Your task to perform on an android device: Open the calendar and show me this week's events? Image 0: 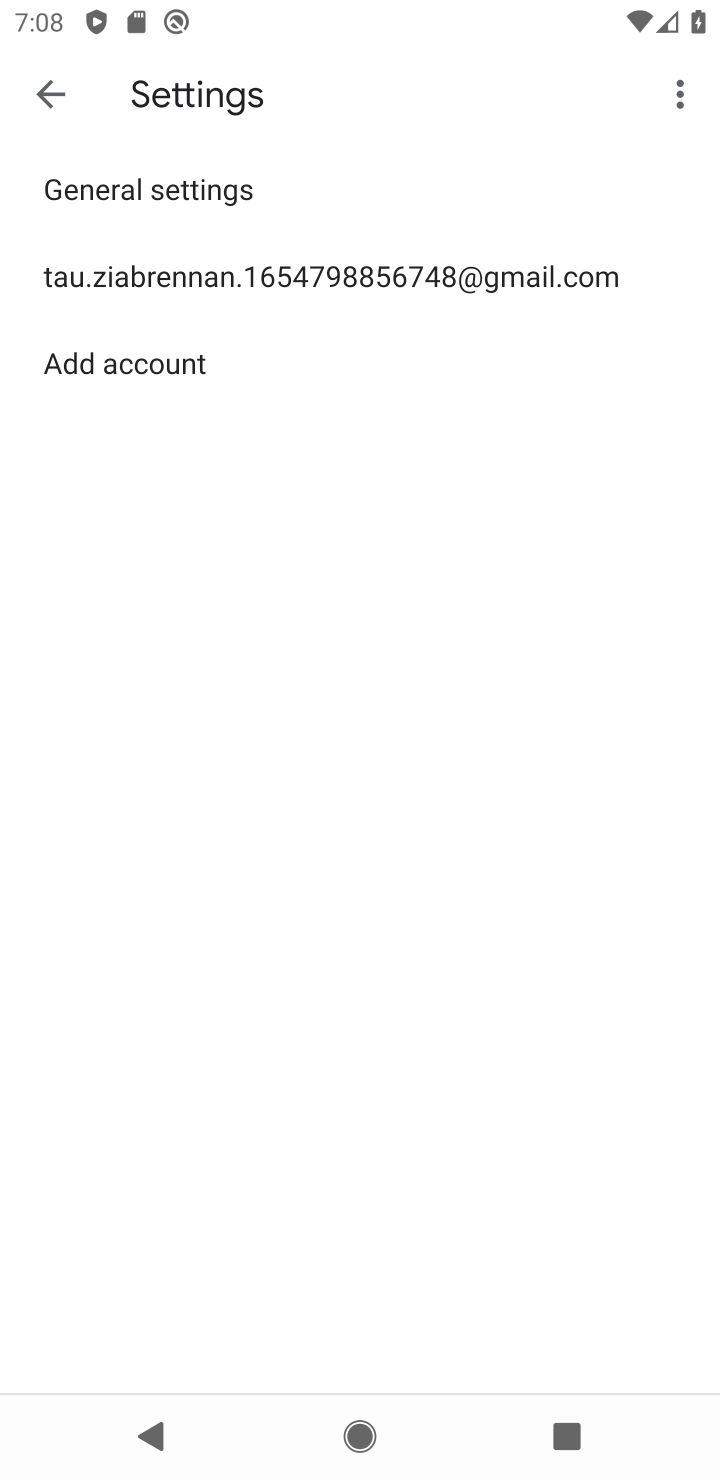
Step 0: press home button
Your task to perform on an android device: Open the calendar and show me this week's events? Image 1: 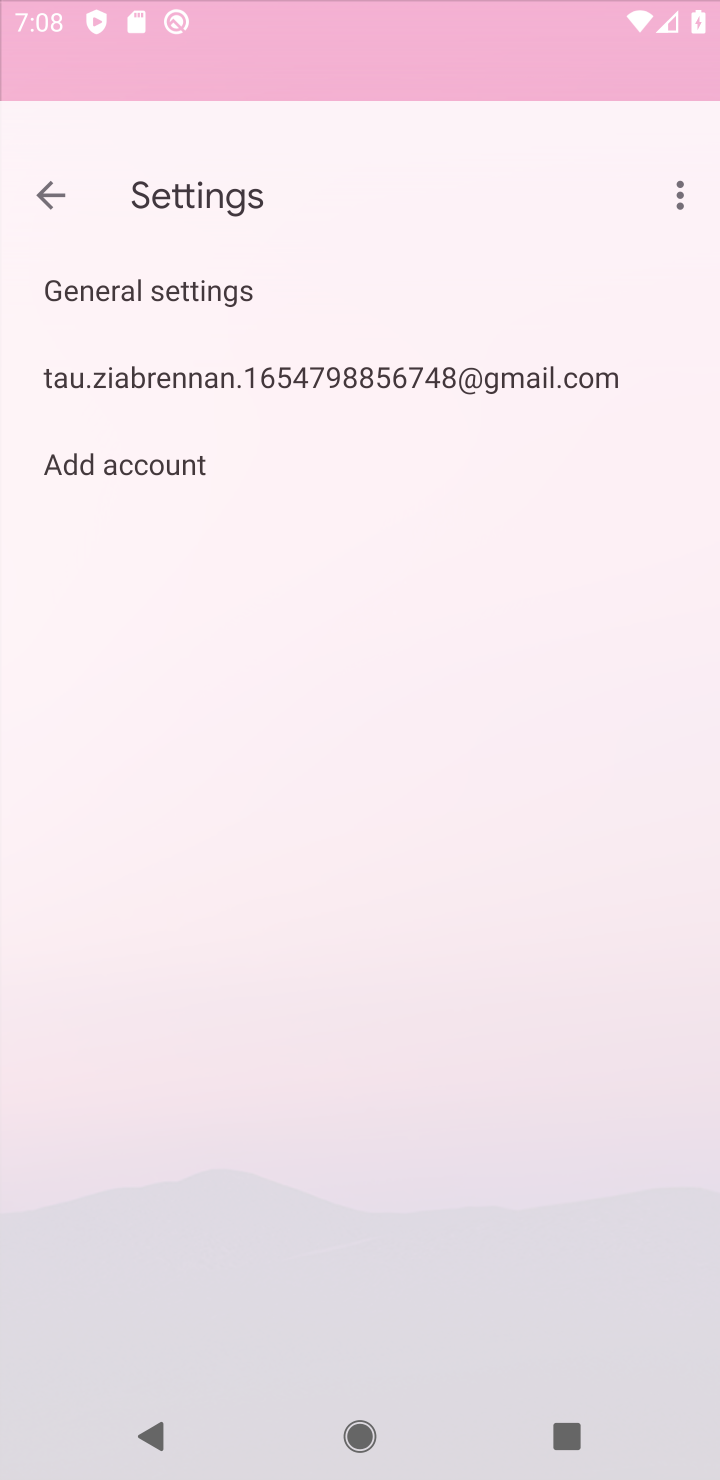
Step 1: drag from (642, 1258) to (341, 95)
Your task to perform on an android device: Open the calendar and show me this week's events? Image 2: 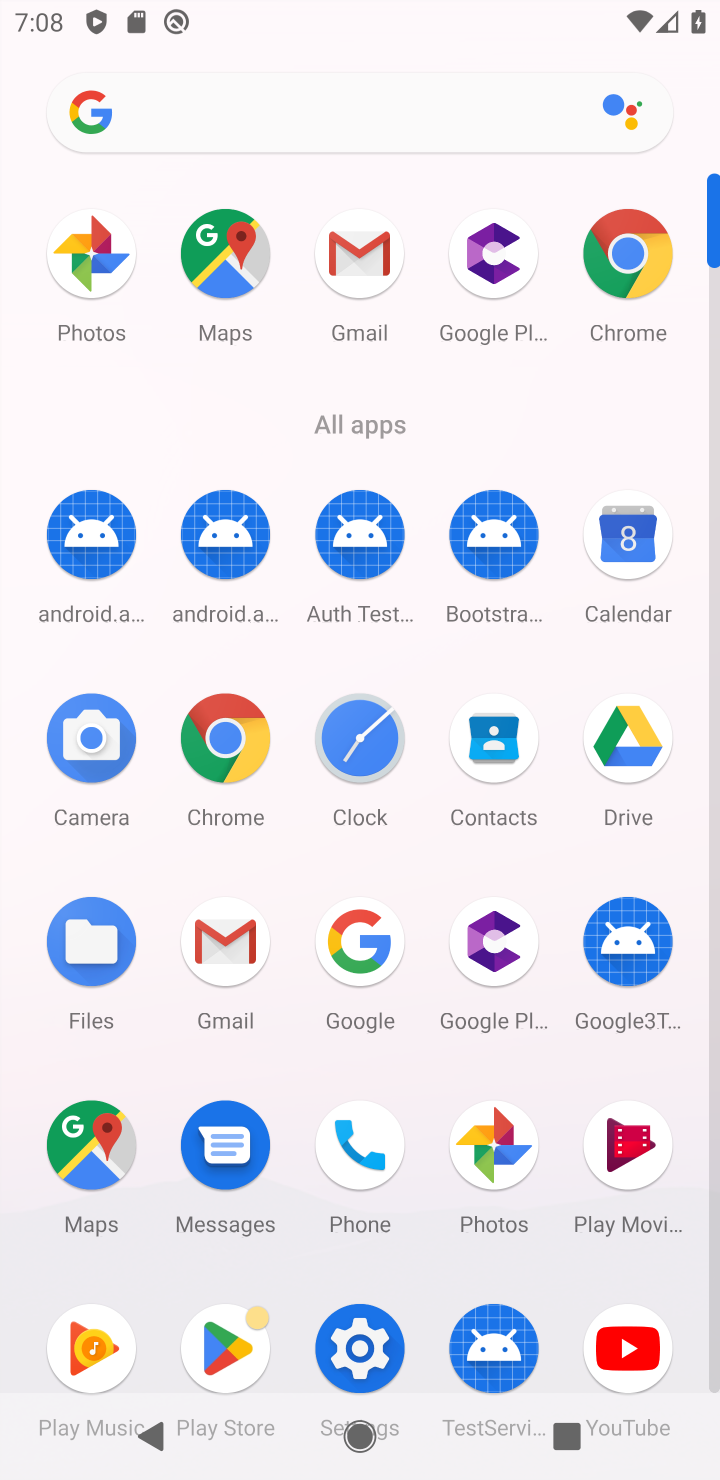
Step 2: click (649, 531)
Your task to perform on an android device: Open the calendar and show me this week's events? Image 3: 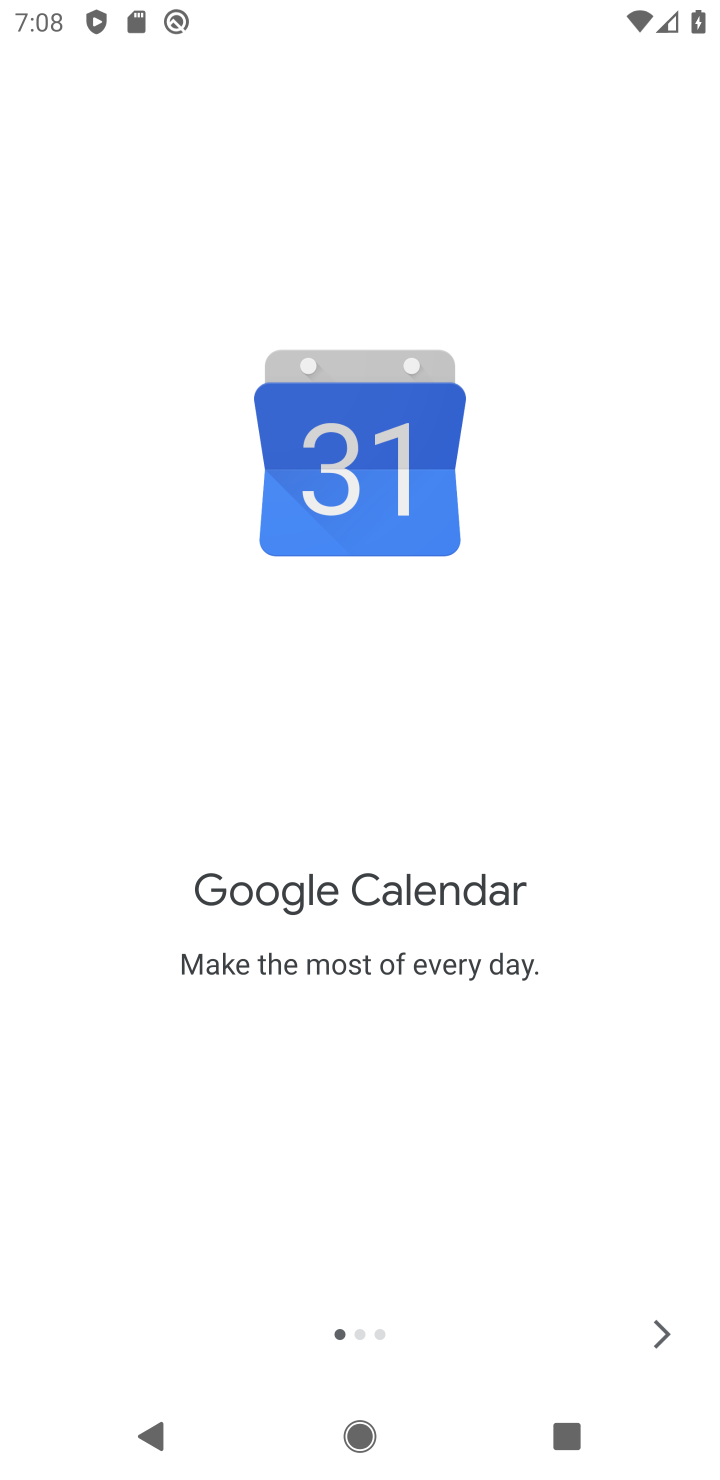
Step 3: click (671, 1318)
Your task to perform on an android device: Open the calendar and show me this week's events? Image 4: 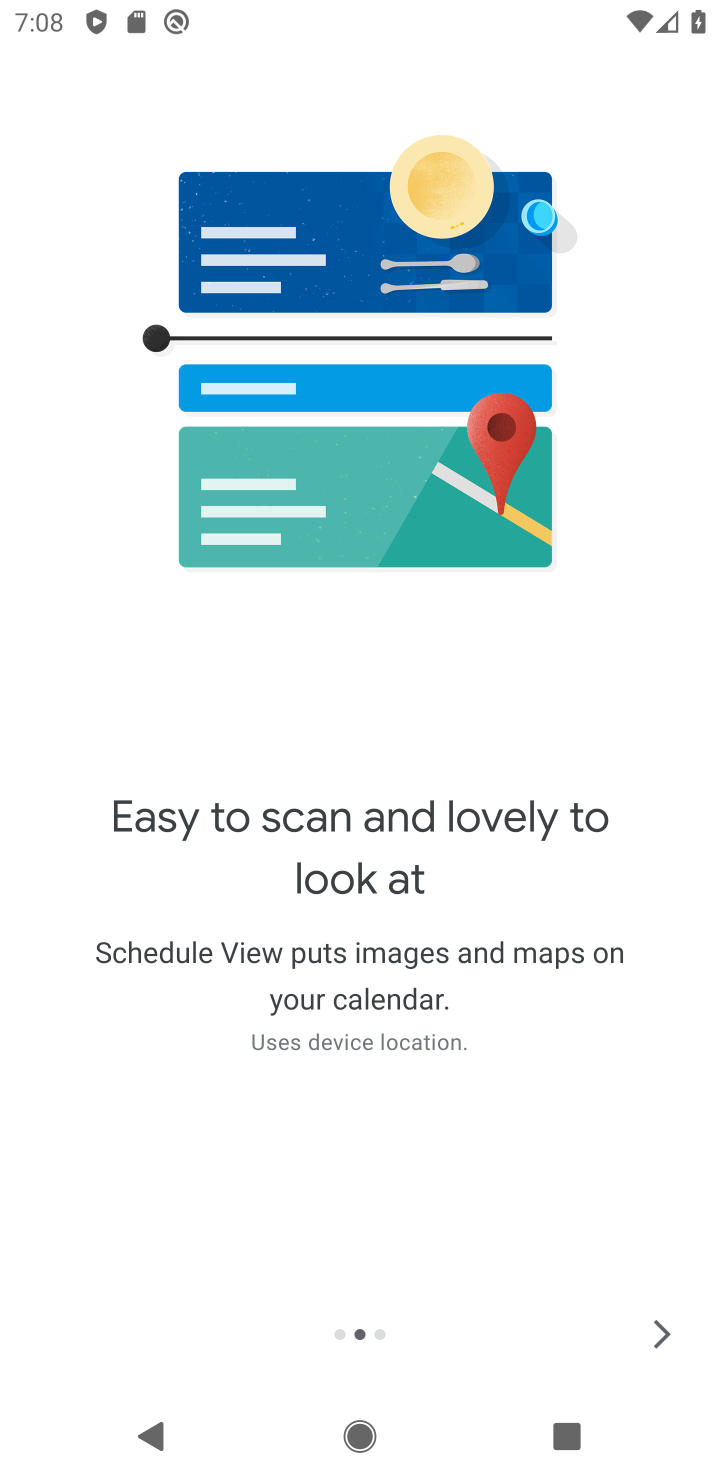
Step 4: click (671, 1318)
Your task to perform on an android device: Open the calendar and show me this week's events? Image 5: 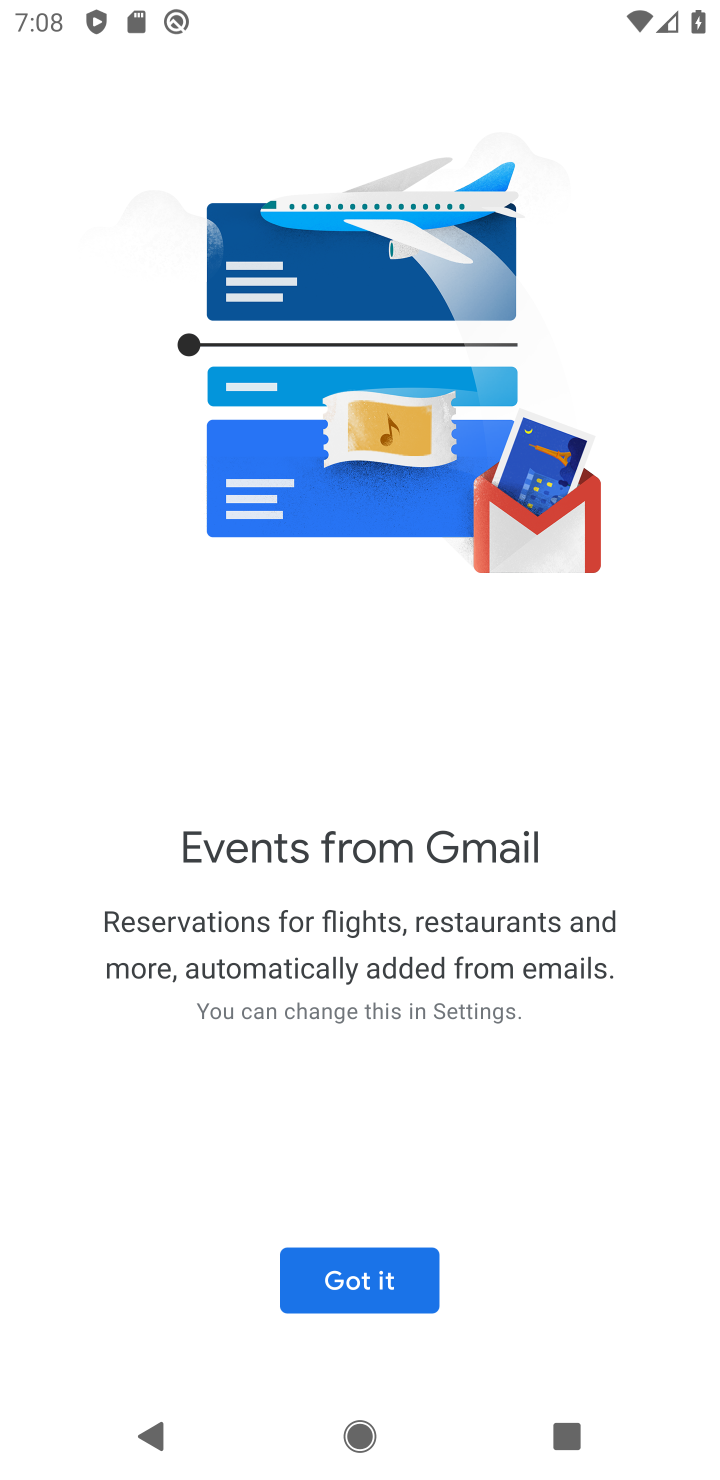
Step 5: click (374, 1299)
Your task to perform on an android device: Open the calendar and show me this week's events? Image 6: 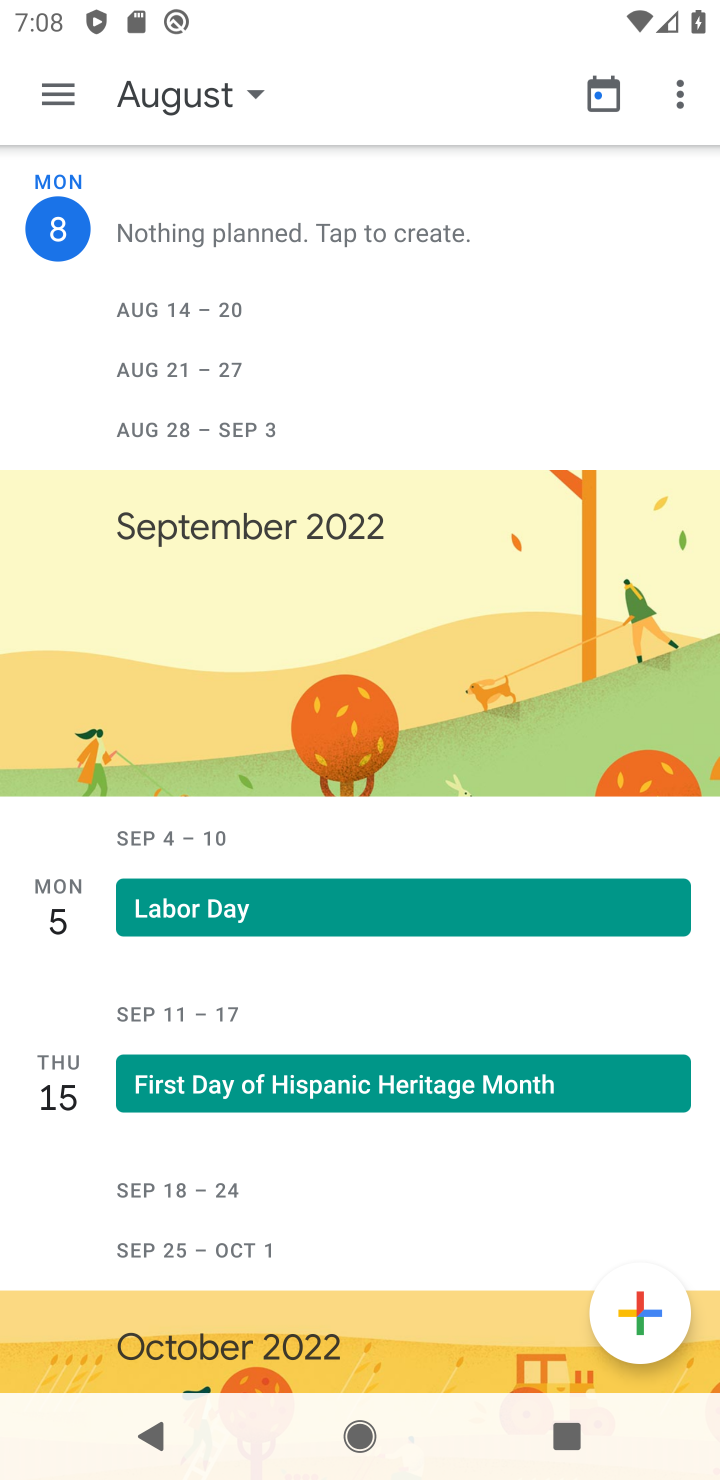
Step 6: task complete